Your task to perform on an android device: Open Google Maps and go to "Timeline" Image 0: 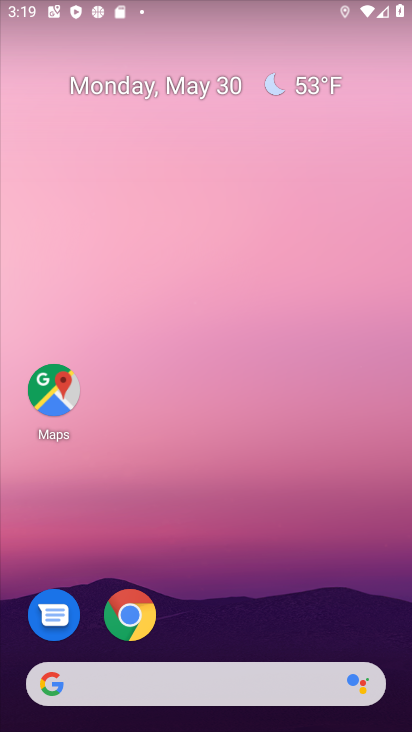
Step 0: click (71, 410)
Your task to perform on an android device: Open Google Maps and go to "Timeline" Image 1: 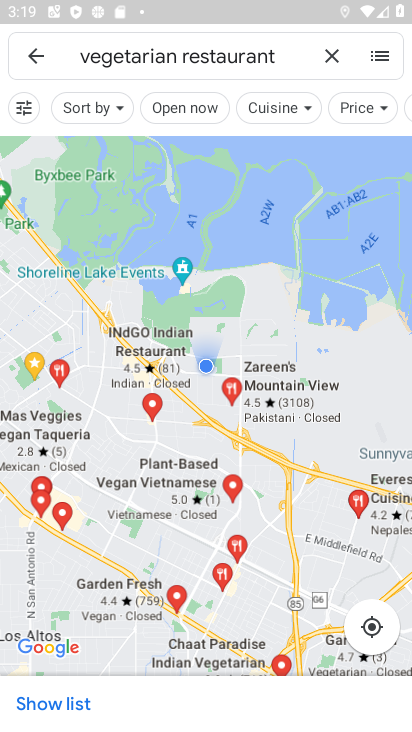
Step 1: click (38, 66)
Your task to perform on an android device: Open Google Maps and go to "Timeline" Image 2: 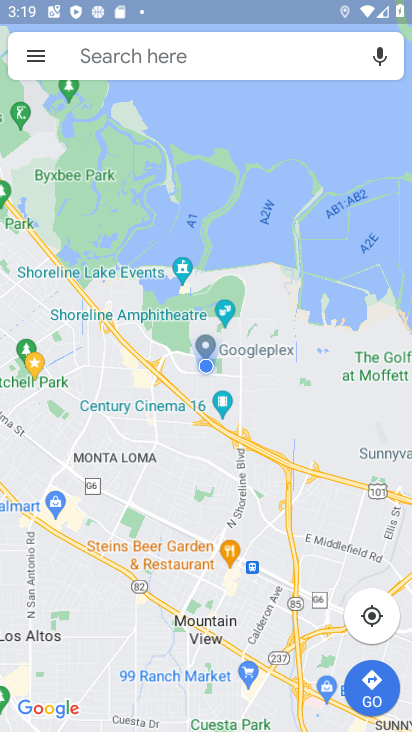
Step 2: click (38, 66)
Your task to perform on an android device: Open Google Maps and go to "Timeline" Image 3: 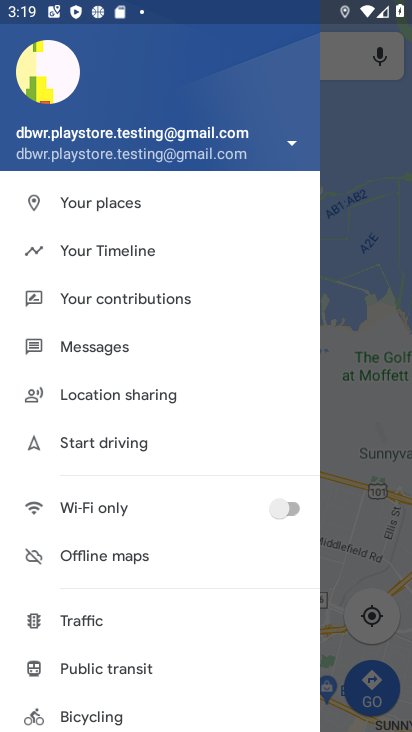
Step 3: click (121, 259)
Your task to perform on an android device: Open Google Maps and go to "Timeline" Image 4: 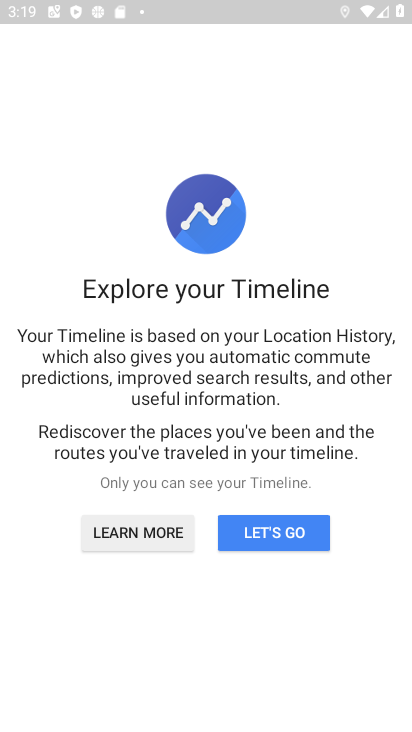
Step 4: click (244, 540)
Your task to perform on an android device: Open Google Maps and go to "Timeline" Image 5: 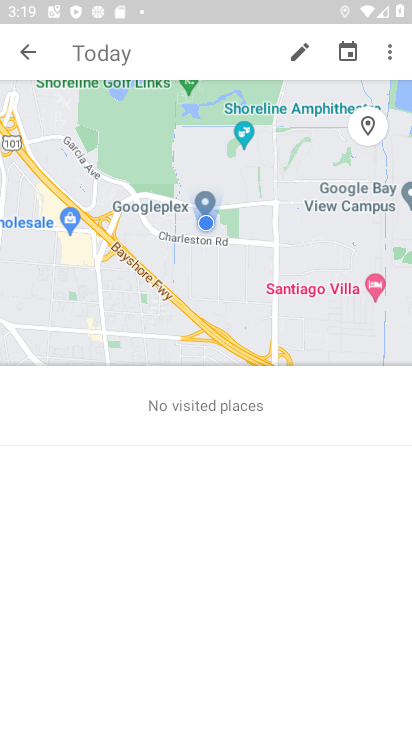
Step 5: task complete